Your task to perform on an android device: Go to network settings Image 0: 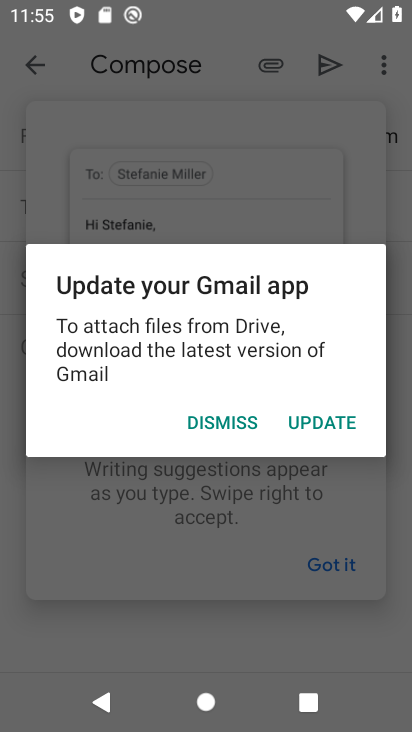
Step 0: press home button
Your task to perform on an android device: Go to network settings Image 1: 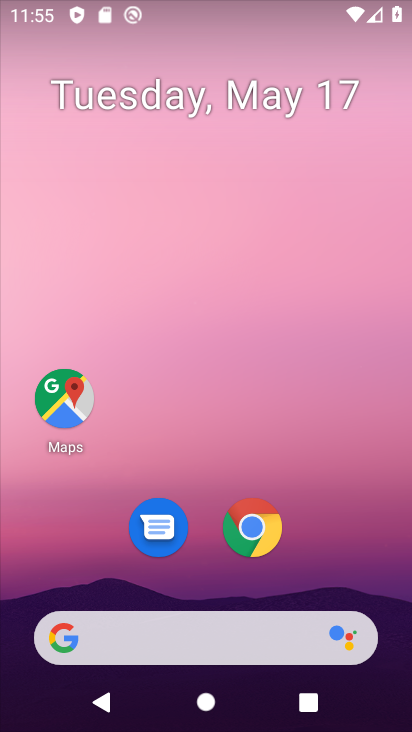
Step 1: drag from (352, 519) to (235, 25)
Your task to perform on an android device: Go to network settings Image 2: 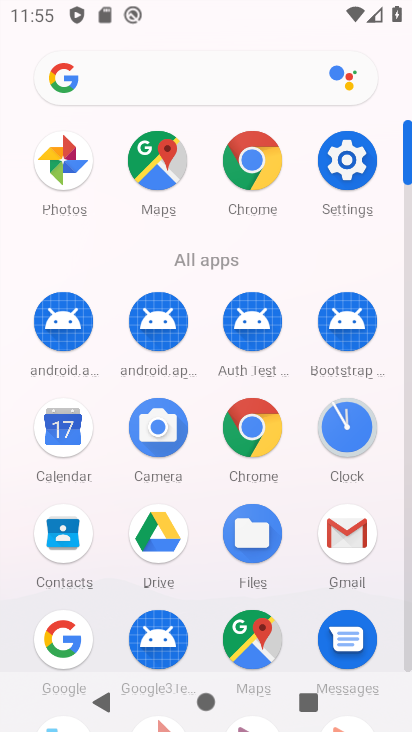
Step 2: click (341, 168)
Your task to perform on an android device: Go to network settings Image 3: 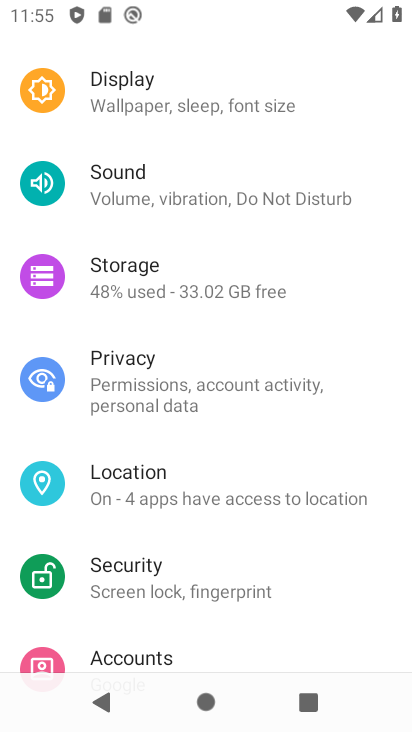
Step 3: drag from (197, 150) to (208, 600)
Your task to perform on an android device: Go to network settings Image 4: 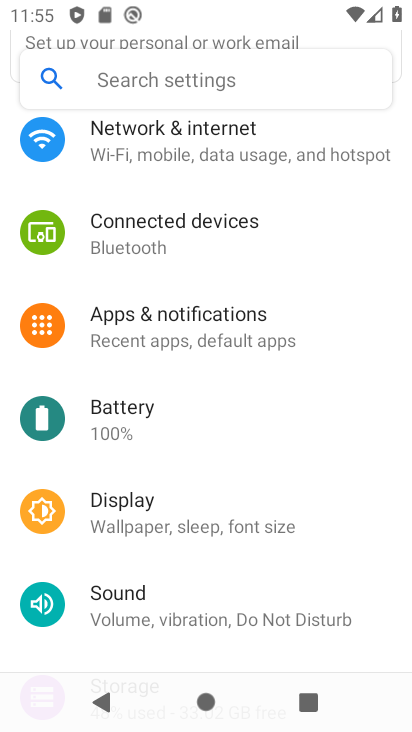
Step 4: click (205, 139)
Your task to perform on an android device: Go to network settings Image 5: 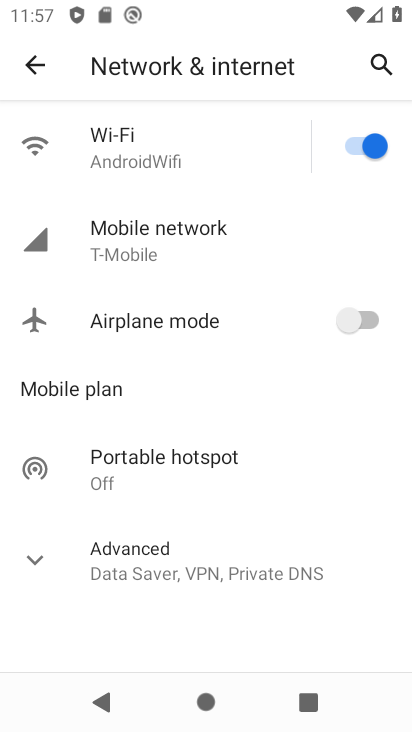
Step 5: task complete